Your task to perform on an android device: Open calendar and show me the first week of next month Image 0: 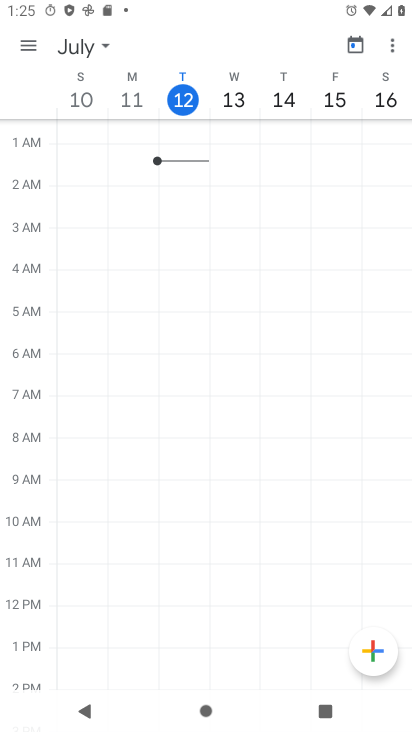
Step 0: press home button
Your task to perform on an android device: Open calendar and show me the first week of next month Image 1: 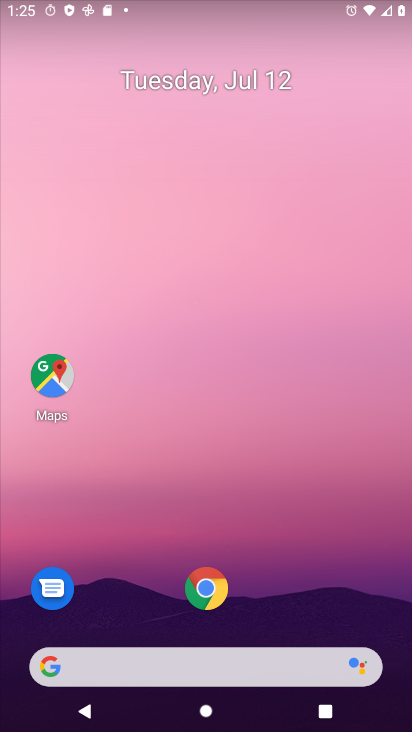
Step 1: drag from (227, 672) to (272, 264)
Your task to perform on an android device: Open calendar and show me the first week of next month Image 2: 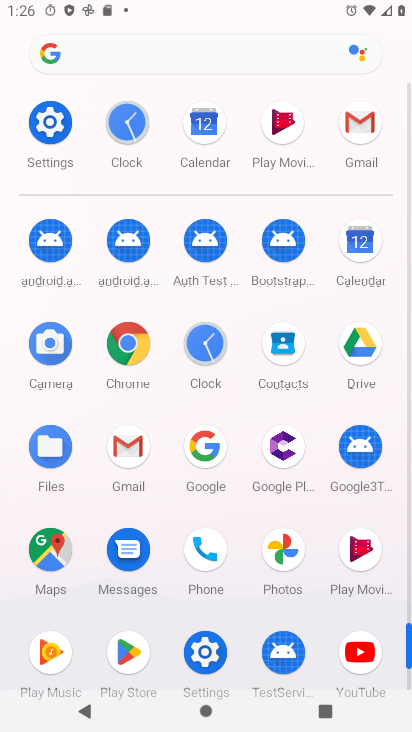
Step 2: click (361, 237)
Your task to perform on an android device: Open calendar and show me the first week of next month Image 3: 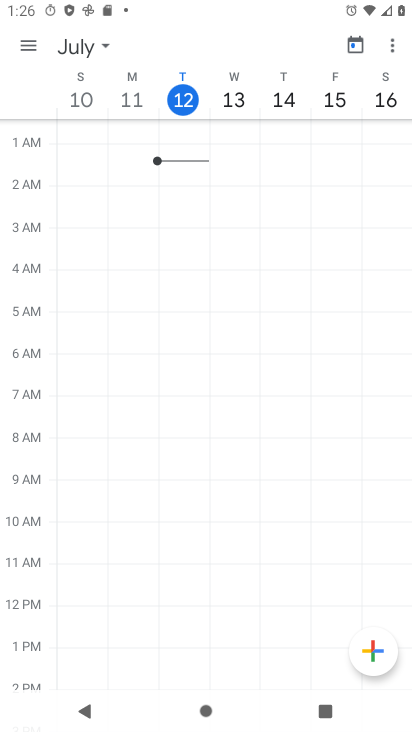
Step 3: click (74, 46)
Your task to perform on an android device: Open calendar and show me the first week of next month Image 4: 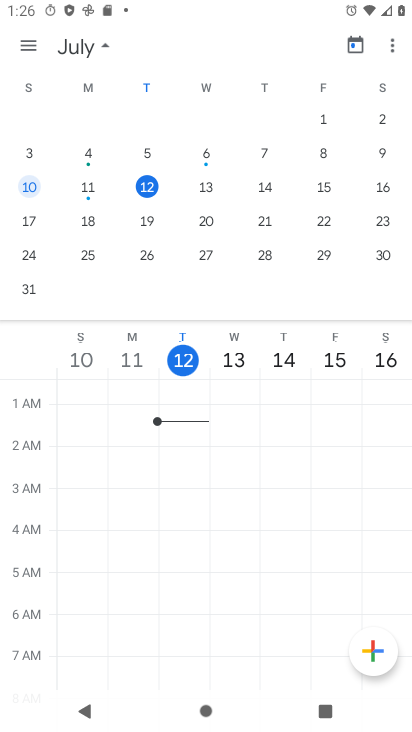
Step 4: drag from (329, 223) to (24, 277)
Your task to perform on an android device: Open calendar and show me the first week of next month Image 5: 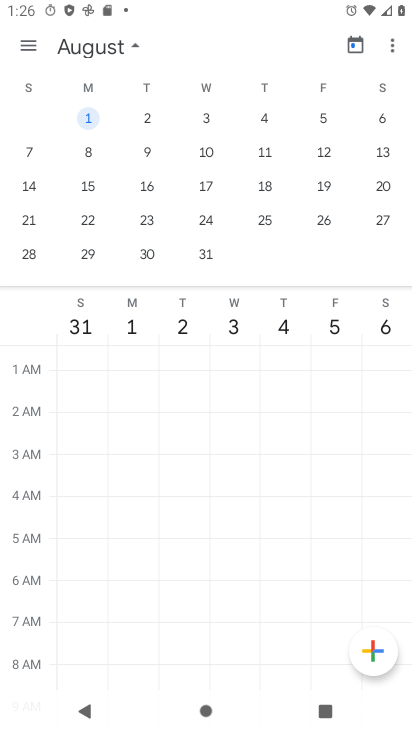
Step 5: click (90, 117)
Your task to perform on an android device: Open calendar and show me the first week of next month Image 6: 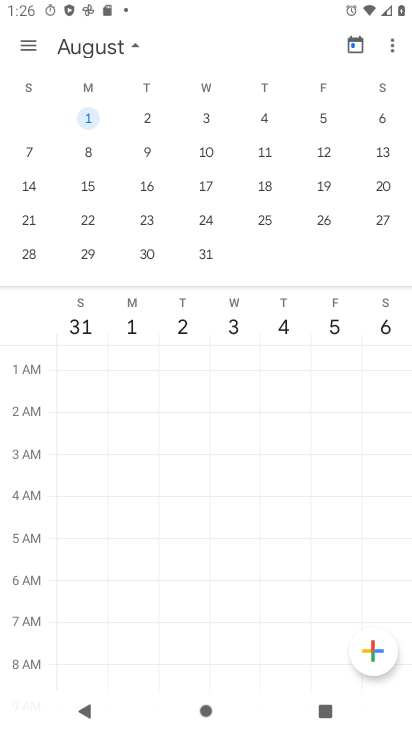
Step 6: click (21, 41)
Your task to perform on an android device: Open calendar and show me the first week of next month Image 7: 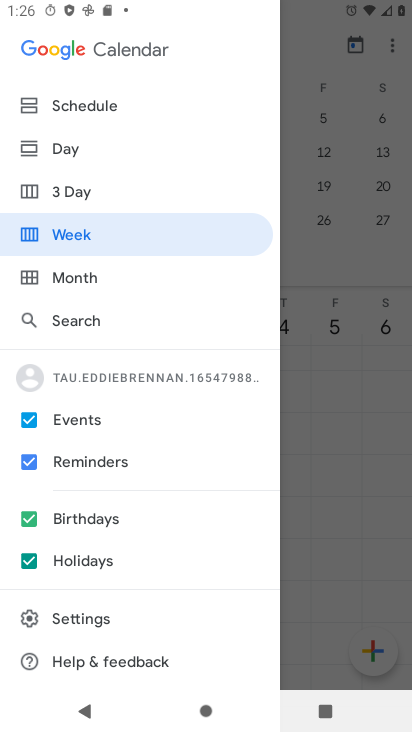
Step 7: click (85, 106)
Your task to perform on an android device: Open calendar and show me the first week of next month Image 8: 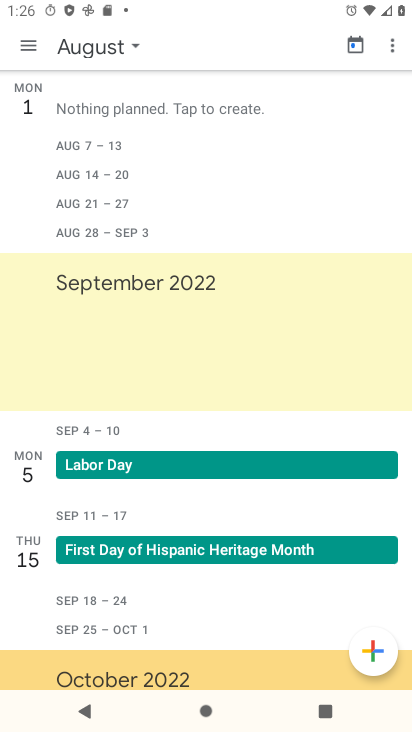
Step 8: task complete